Your task to perform on an android device: What's on my calendar today? Image 0: 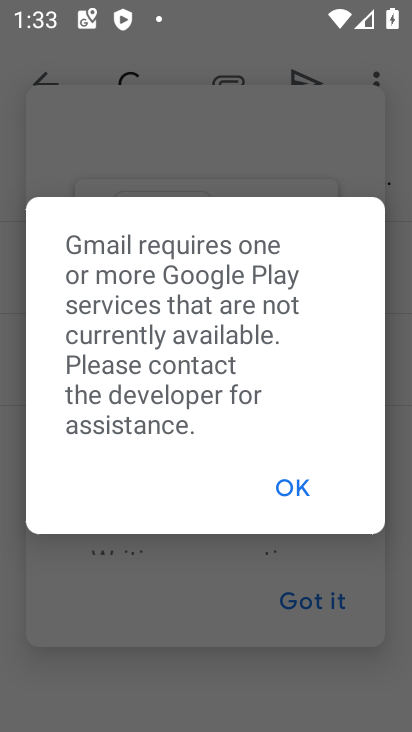
Step 0: press home button
Your task to perform on an android device: What's on my calendar today? Image 1: 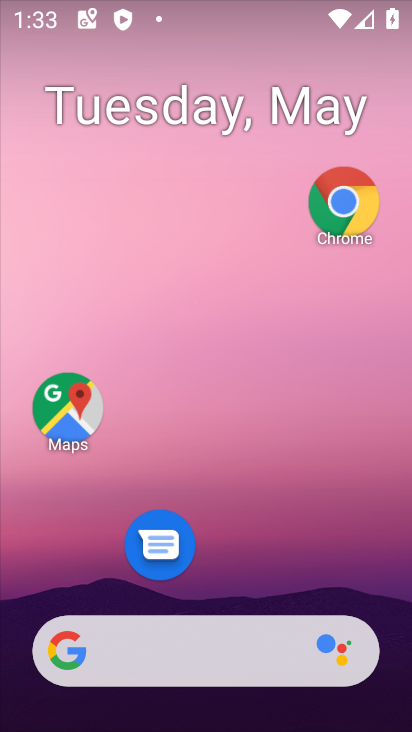
Step 1: click (167, 118)
Your task to perform on an android device: What's on my calendar today? Image 2: 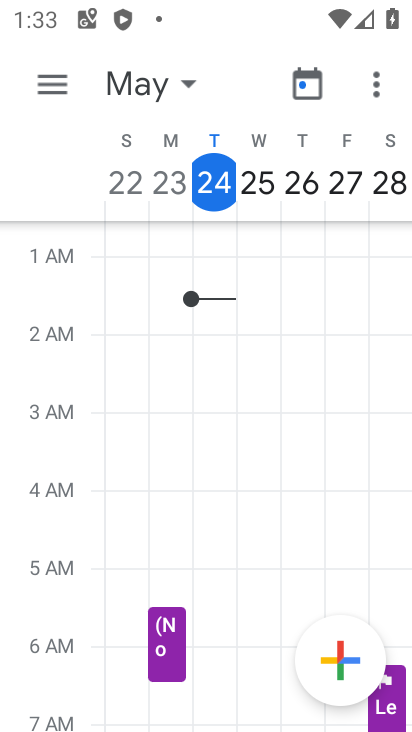
Step 2: task complete